Your task to perform on an android device: turn on priority inbox in the gmail app Image 0: 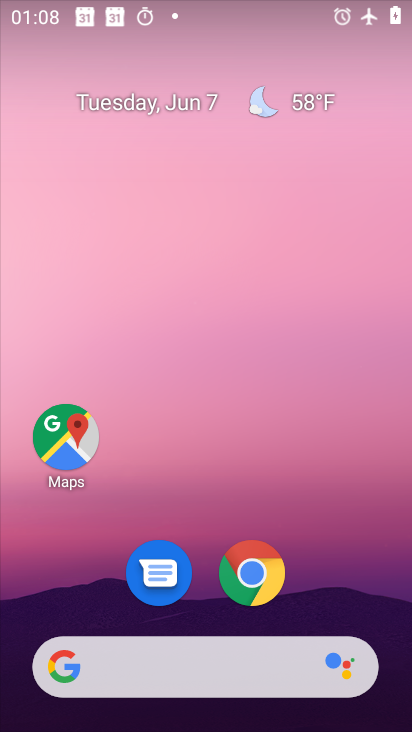
Step 0: press home button
Your task to perform on an android device: turn on priority inbox in the gmail app Image 1: 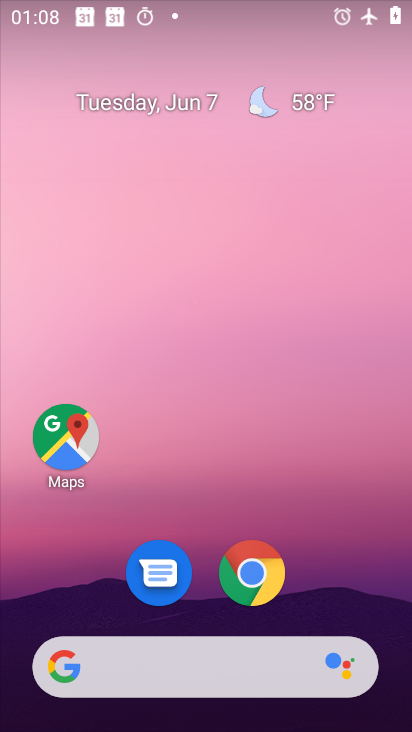
Step 1: drag from (315, 631) to (206, 3)
Your task to perform on an android device: turn on priority inbox in the gmail app Image 2: 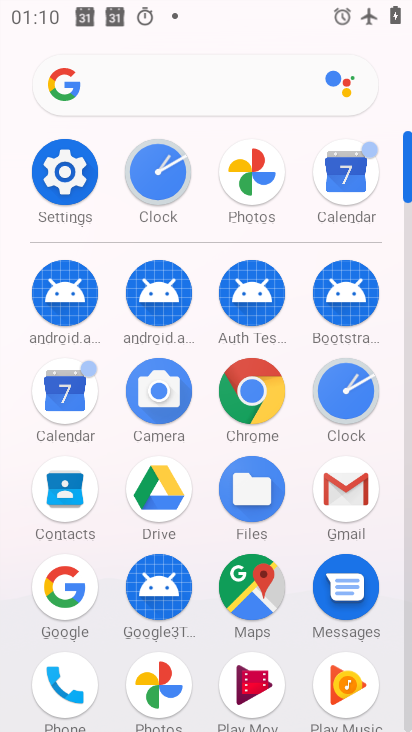
Step 2: click (336, 484)
Your task to perform on an android device: turn on priority inbox in the gmail app Image 3: 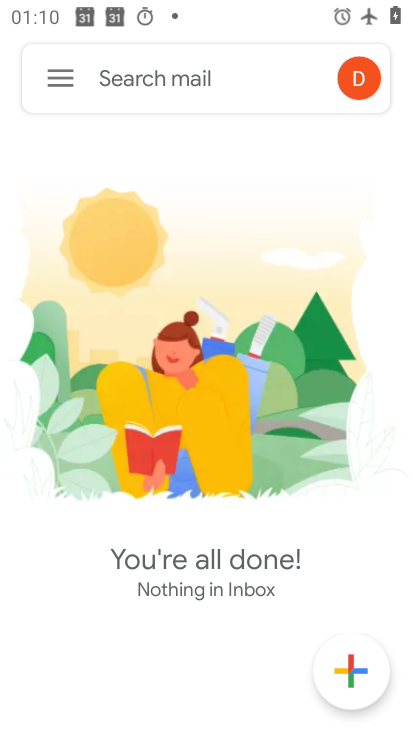
Step 3: click (64, 74)
Your task to perform on an android device: turn on priority inbox in the gmail app Image 4: 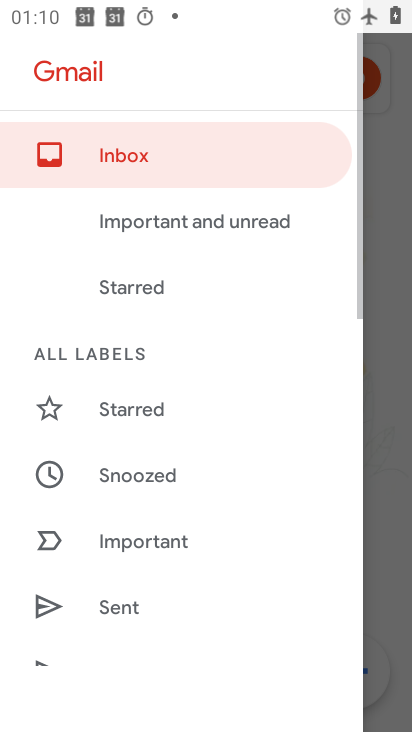
Step 4: drag from (171, 569) to (196, 329)
Your task to perform on an android device: turn on priority inbox in the gmail app Image 5: 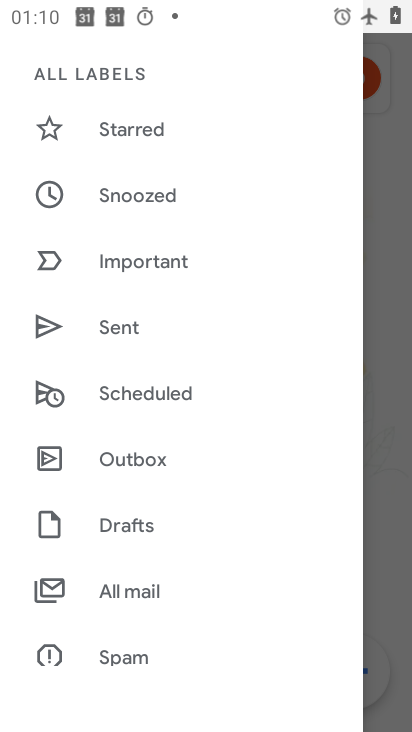
Step 5: drag from (185, 623) to (215, 277)
Your task to perform on an android device: turn on priority inbox in the gmail app Image 6: 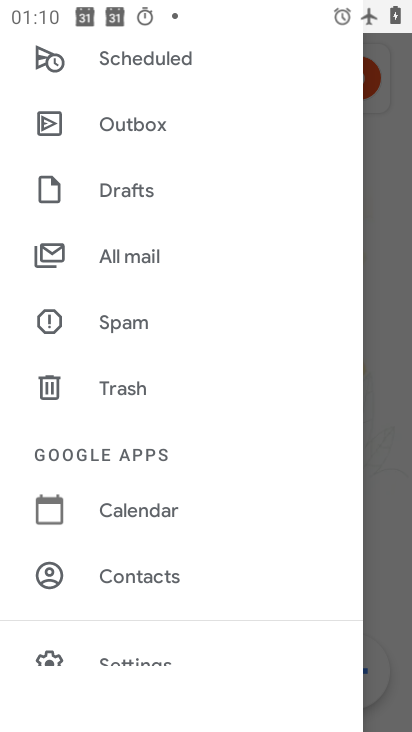
Step 6: drag from (143, 570) to (143, 221)
Your task to perform on an android device: turn on priority inbox in the gmail app Image 7: 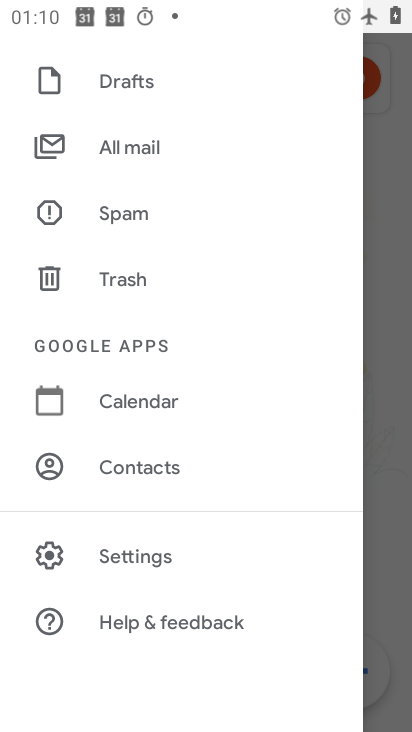
Step 7: click (134, 547)
Your task to perform on an android device: turn on priority inbox in the gmail app Image 8: 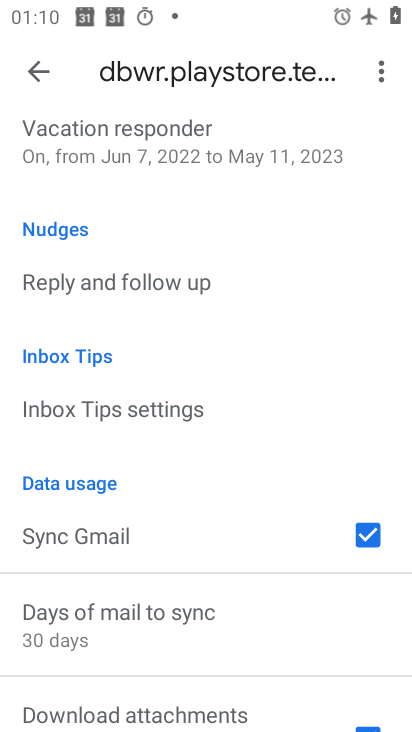
Step 8: click (32, 76)
Your task to perform on an android device: turn on priority inbox in the gmail app Image 9: 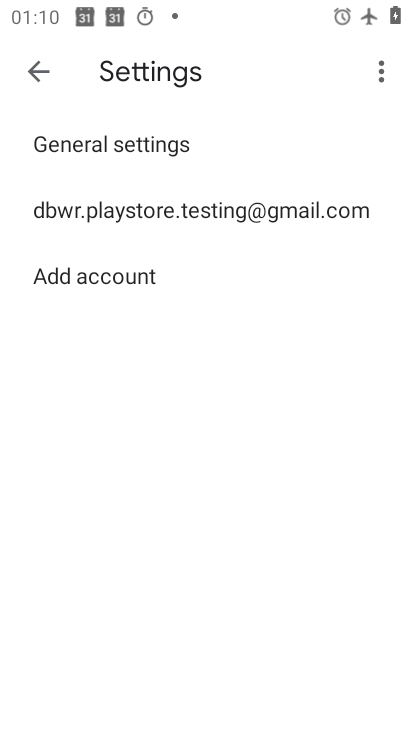
Step 9: click (32, 76)
Your task to perform on an android device: turn on priority inbox in the gmail app Image 10: 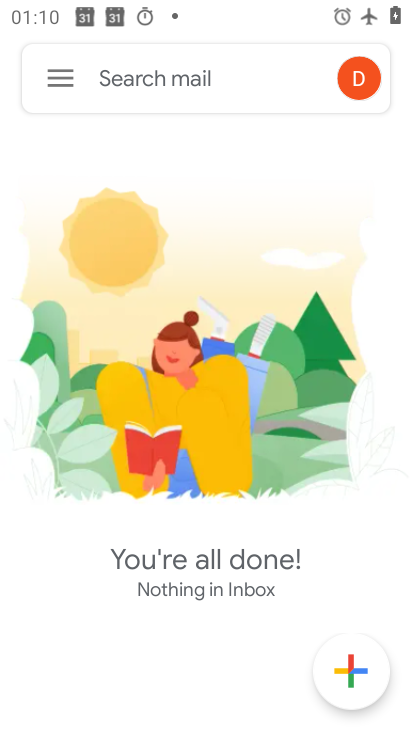
Step 10: click (60, 95)
Your task to perform on an android device: turn on priority inbox in the gmail app Image 11: 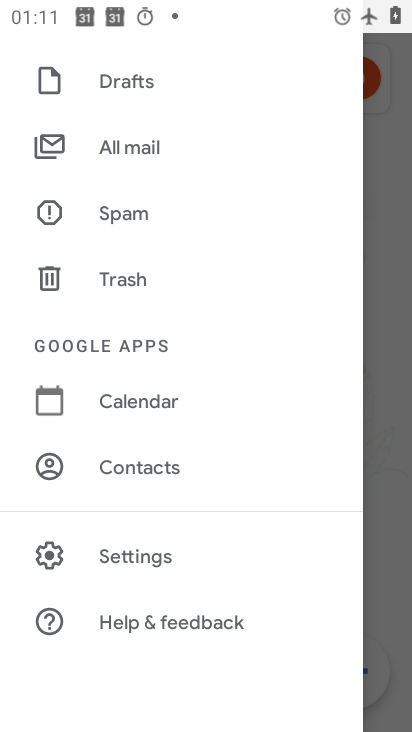
Step 11: click (114, 538)
Your task to perform on an android device: turn on priority inbox in the gmail app Image 12: 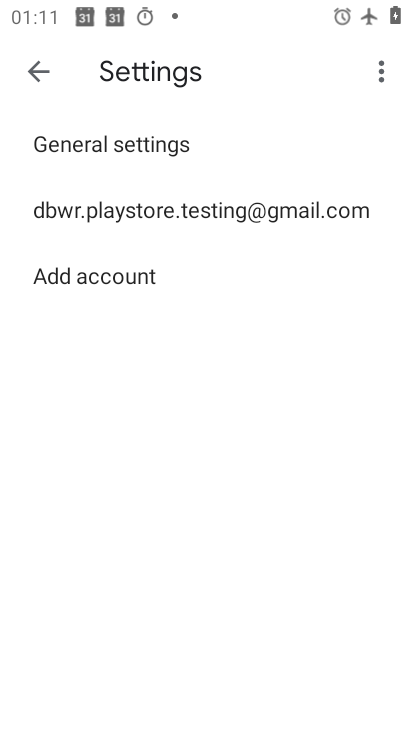
Step 12: click (148, 198)
Your task to perform on an android device: turn on priority inbox in the gmail app Image 13: 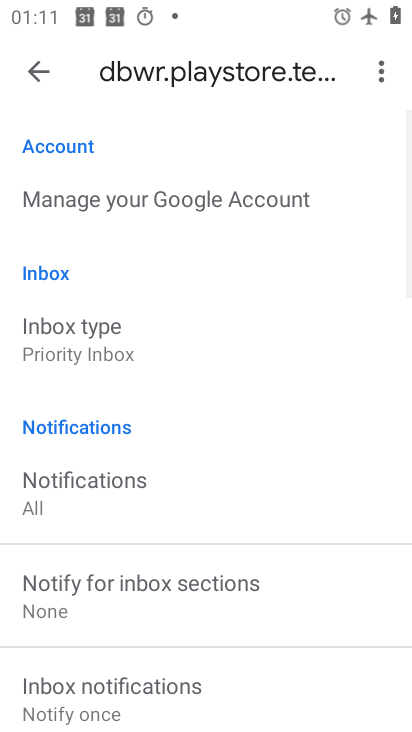
Step 13: click (72, 344)
Your task to perform on an android device: turn on priority inbox in the gmail app Image 14: 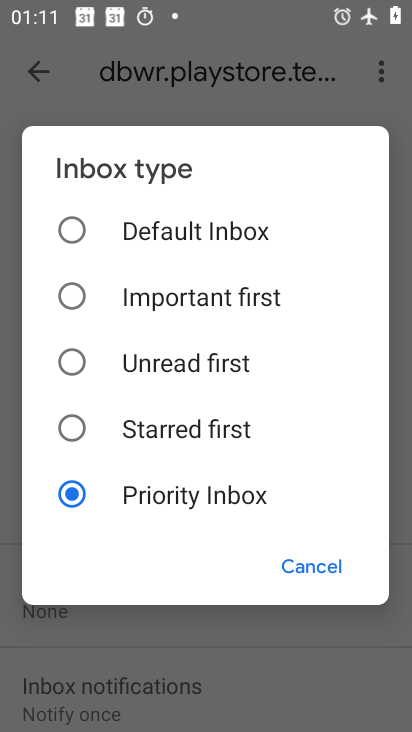
Step 14: task complete